Your task to perform on an android device: Open the contacts Image 0: 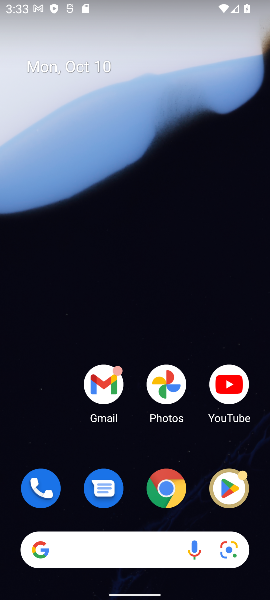
Step 0: drag from (65, 413) to (113, 137)
Your task to perform on an android device: Open the contacts Image 1: 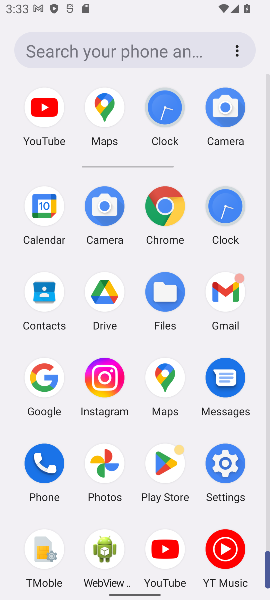
Step 1: click (51, 317)
Your task to perform on an android device: Open the contacts Image 2: 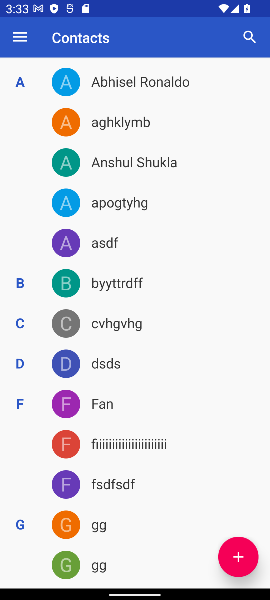
Step 2: task complete